Your task to perform on an android device: all mails in gmail Image 0: 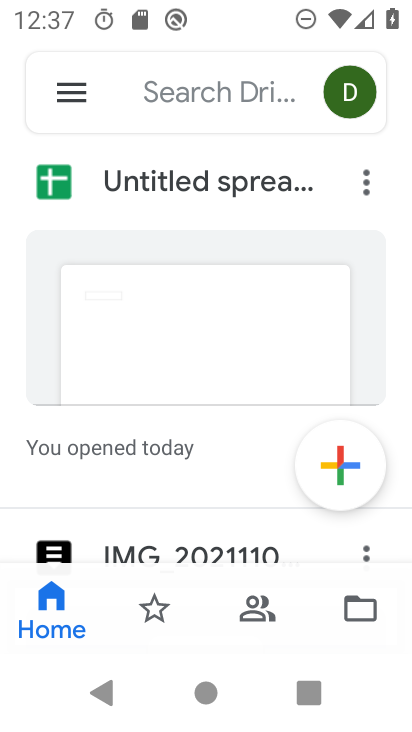
Step 0: press home button
Your task to perform on an android device: all mails in gmail Image 1: 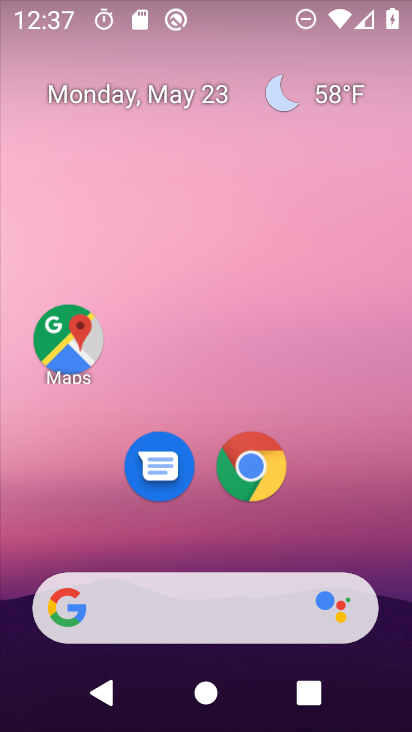
Step 1: drag from (235, 536) to (243, 83)
Your task to perform on an android device: all mails in gmail Image 2: 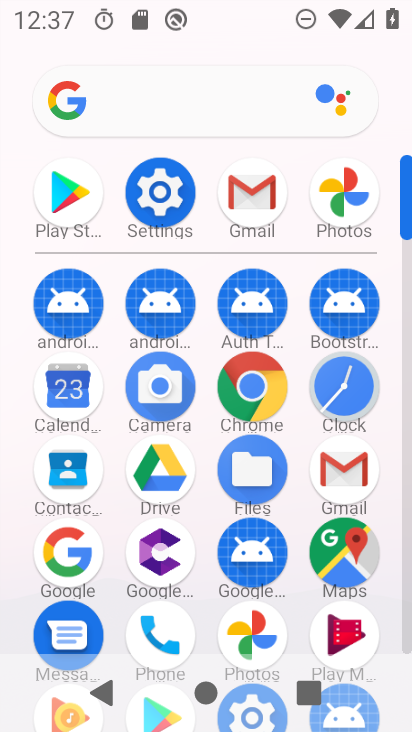
Step 2: click (247, 187)
Your task to perform on an android device: all mails in gmail Image 3: 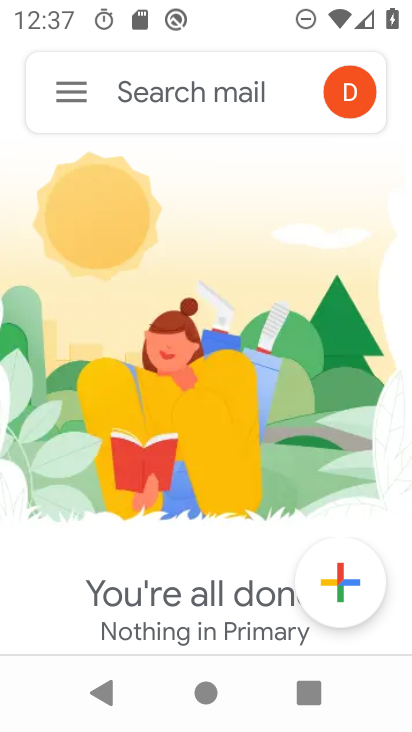
Step 3: click (85, 90)
Your task to perform on an android device: all mails in gmail Image 4: 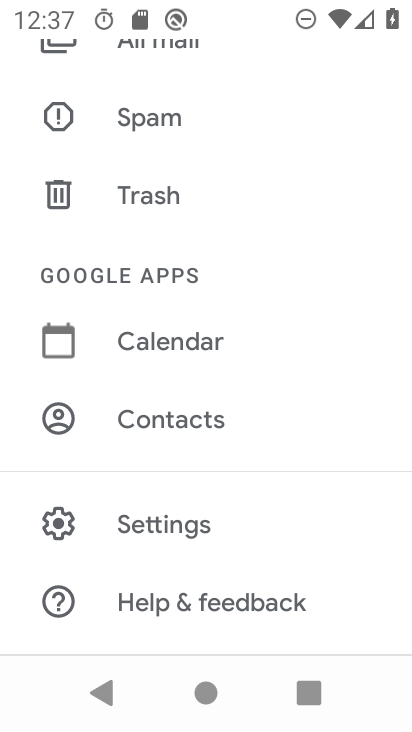
Step 4: drag from (254, 171) to (251, 495)
Your task to perform on an android device: all mails in gmail Image 5: 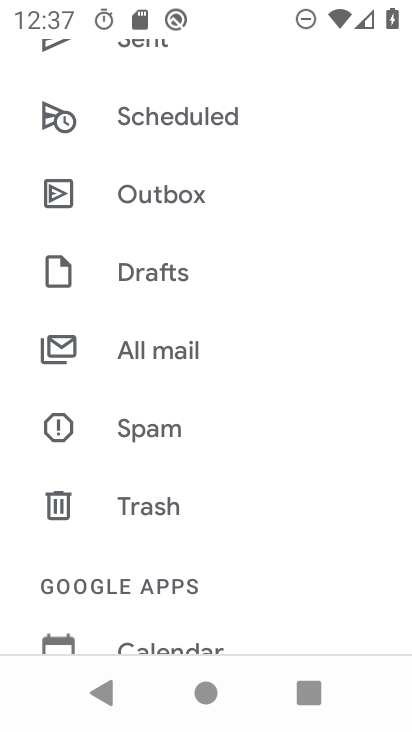
Step 5: click (121, 350)
Your task to perform on an android device: all mails in gmail Image 6: 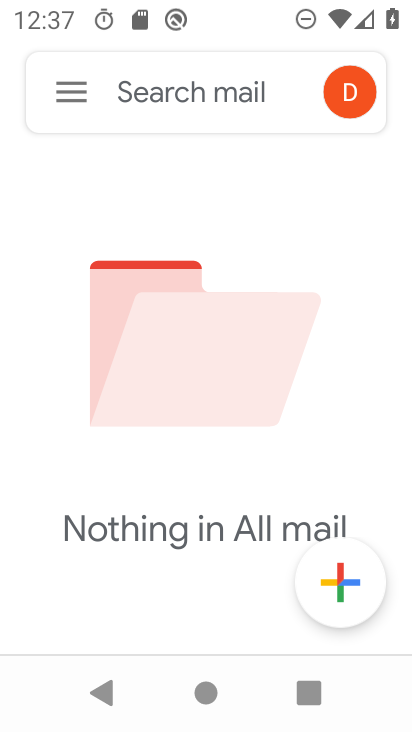
Step 6: task complete